Your task to perform on an android device: Show me recent news Image 0: 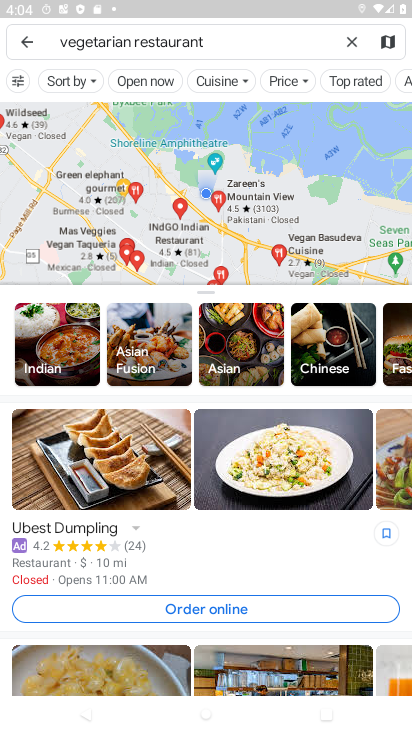
Step 0: press home button
Your task to perform on an android device: Show me recent news Image 1: 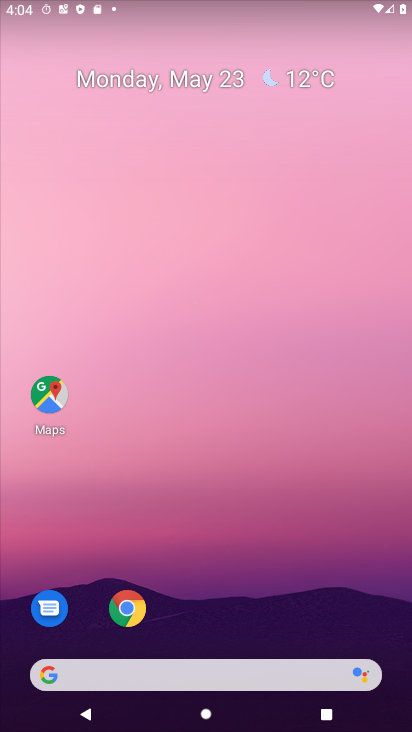
Step 1: drag from (266, 552) to (161, 38)
Your task to perform on an android device: Show me recent news Image 2: 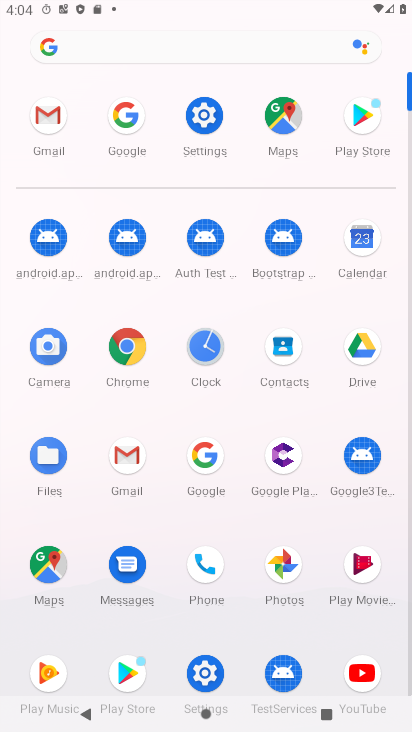
Step 2: click (207, 468)
Your task to perform on an android device: Show me recent news Image 3: 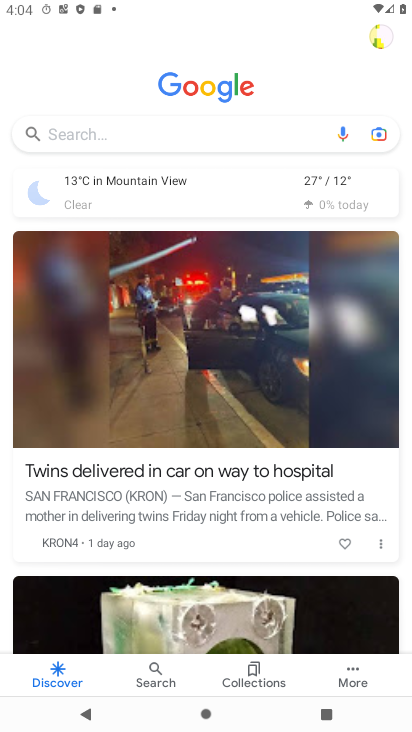
Step 3: click (119, 132)
Your task to perform on an android device: Show me recent news Image 4: 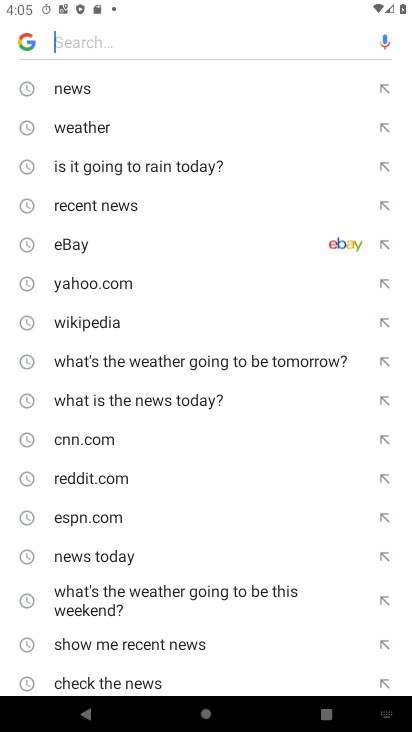
Step 4: click (136, 192)
Your task to perform on an android device: Show me recent news Image 5: 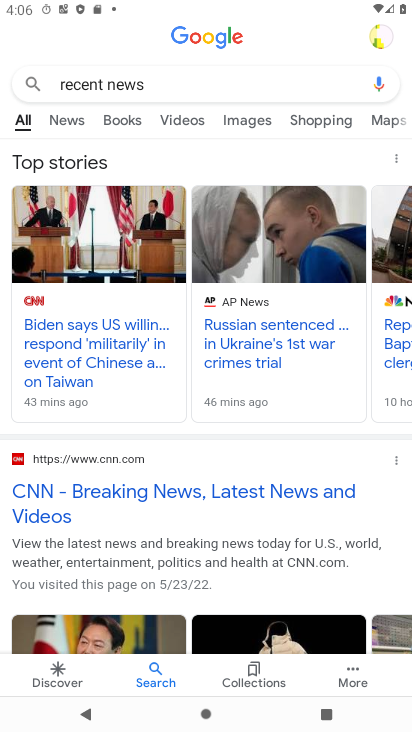
Step 5: task complete